Your task to perform on an android device: install app "Walmart Shopping & Grocery" Image 0: 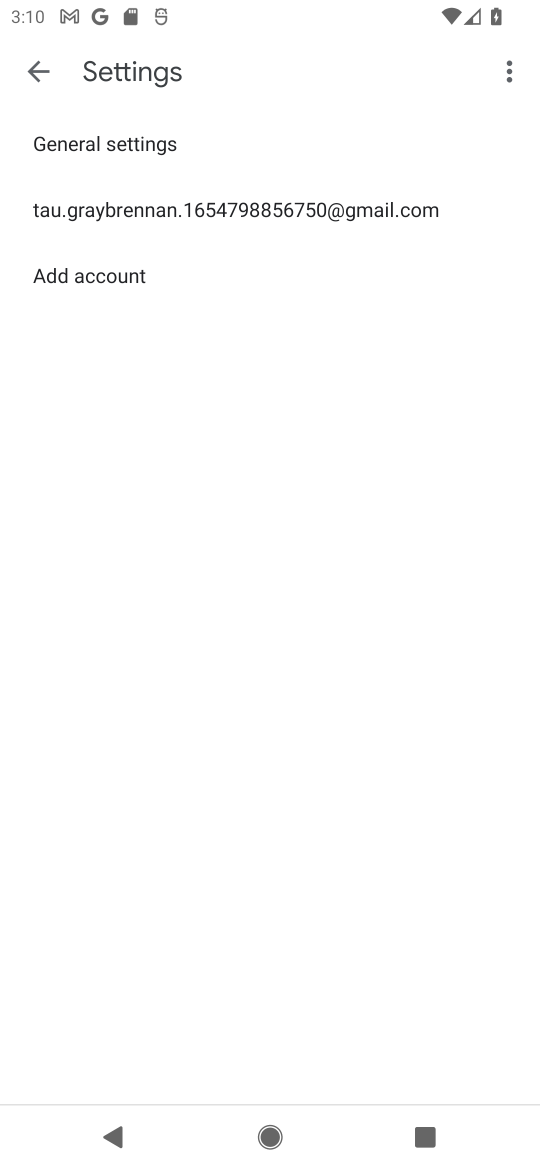
Step 0: drag from (166, 947) to (288, 510)
Your task to perform on an android device: install app "Walmart Shopping & Grocery" Image 1: 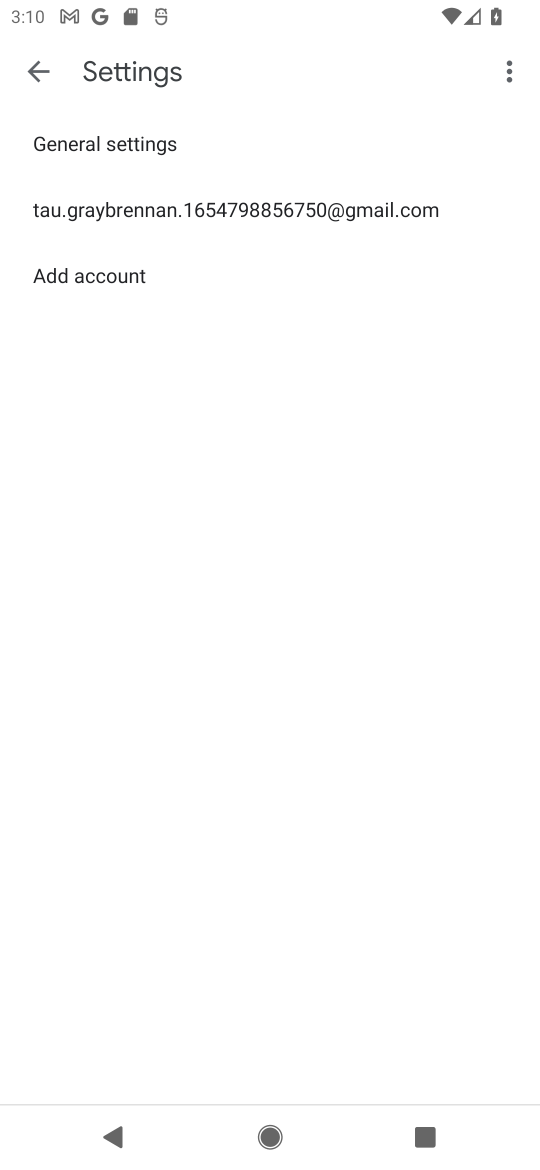
Step 1: press home button
Your task to perform on an android device: install app "Walmart Shopping & Grocery" Image 2: 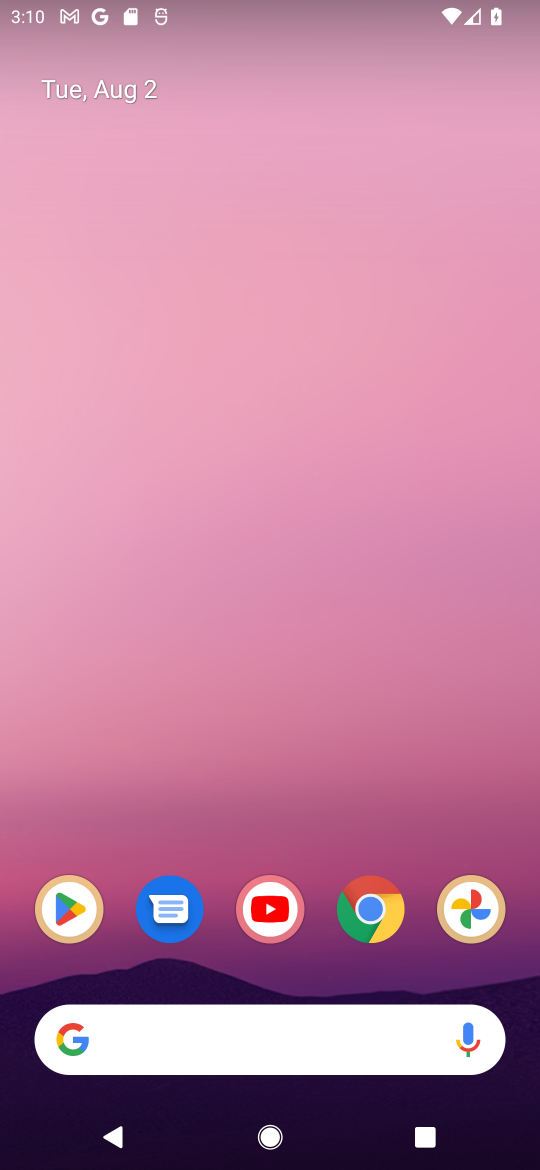
Step 2: drag from (279, 958) to (370, 5)
Your task to perform on an android device: install app "Walmart Shopping & Grocery" Image 3: 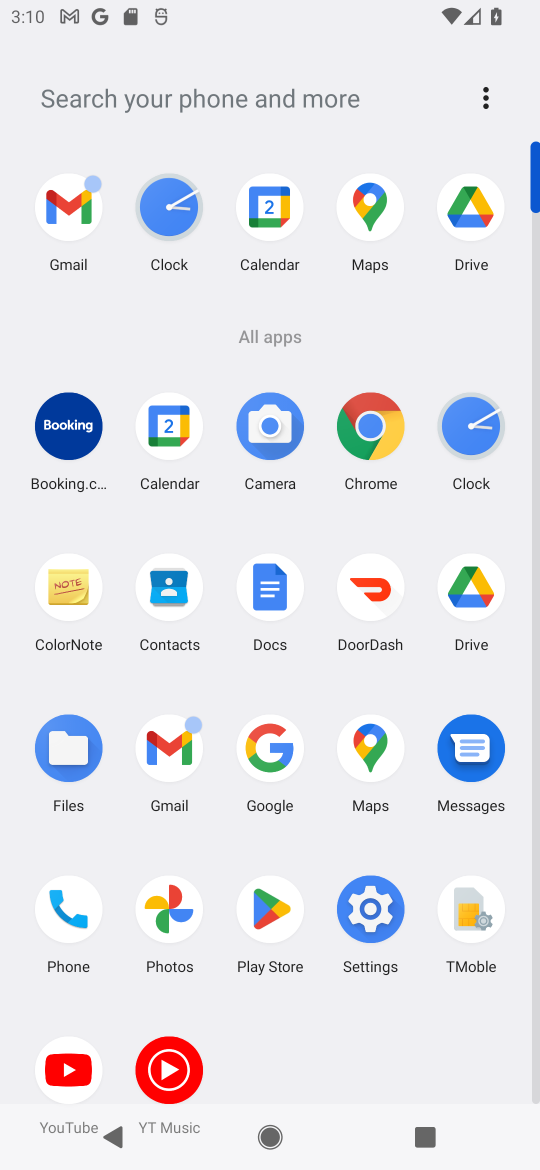
Step 3: click (260, 883)
Your task to perform on an android device: install app "Walmart Shopping & Grocery" Image 4: 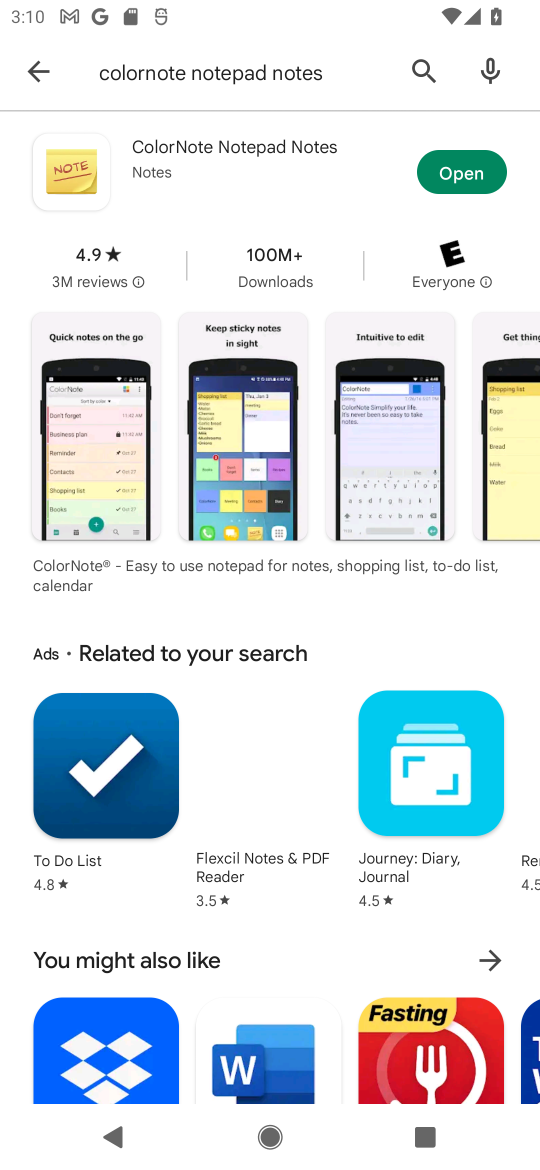
Step 4: click (426, 78)
Your task to perform on an android device: install app "Walmart Shopping & Grocery" Image 5: 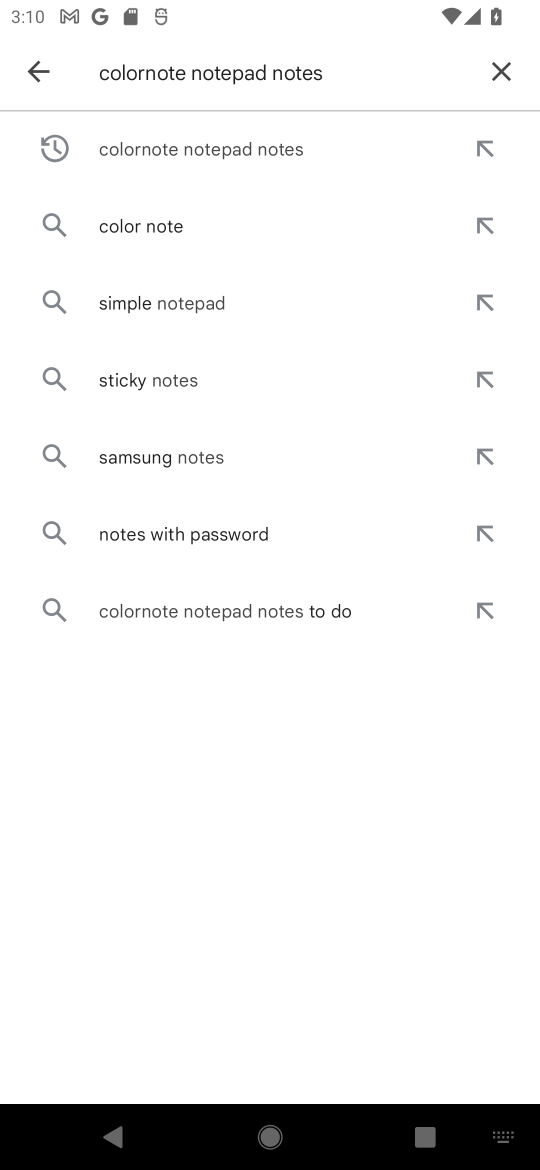
Step 5: click (504, 78)
Your task to perform on an android device: install app "Walmart Shopping & Grocery" Image 6: 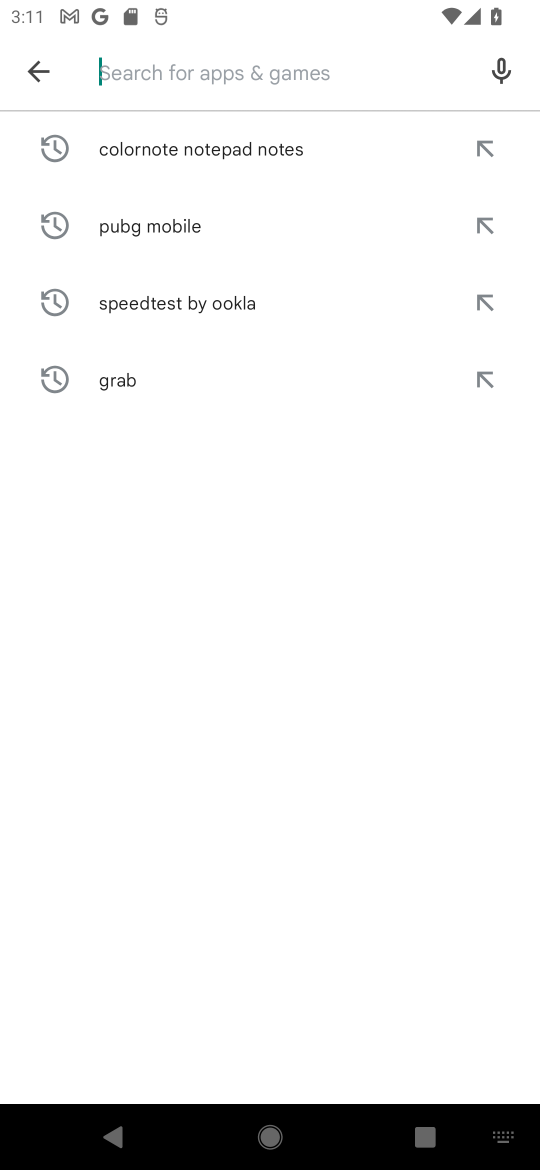
Step 6: type ""
Your task to perform on an android device: install app "Walmart Shopping & Grocery" Image 7: 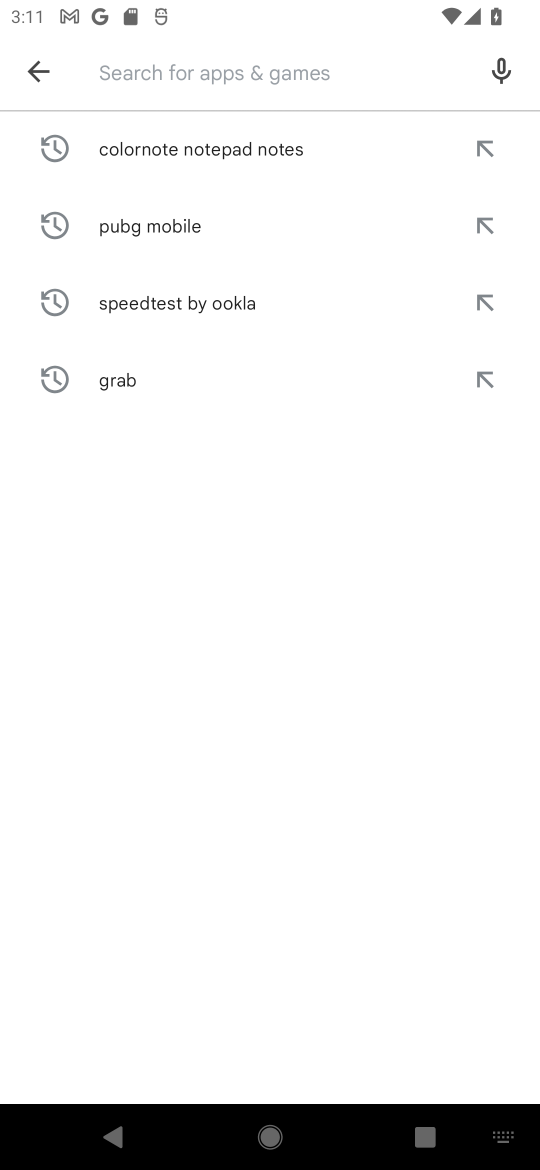
Step 7: type "Walmart Shopping & Grocery"
Your task to perform on an android device: install app "Walmart Shopping & Grocery" Image 8: 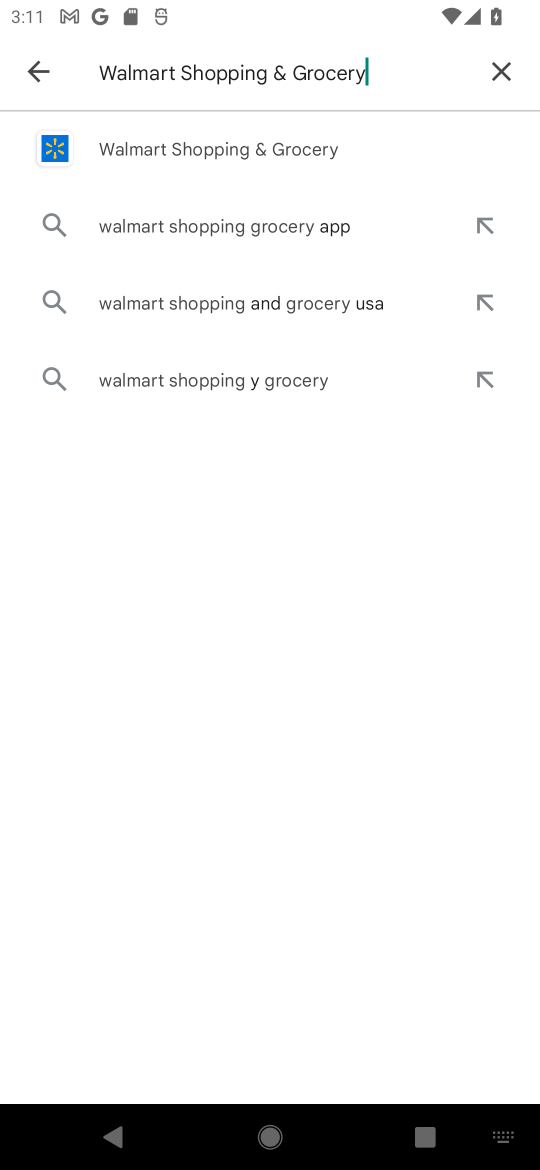
Step 8: click (255, 150)
Your task to perform on an android device: install app "Walmart Shopping & Grocery" Image 9: 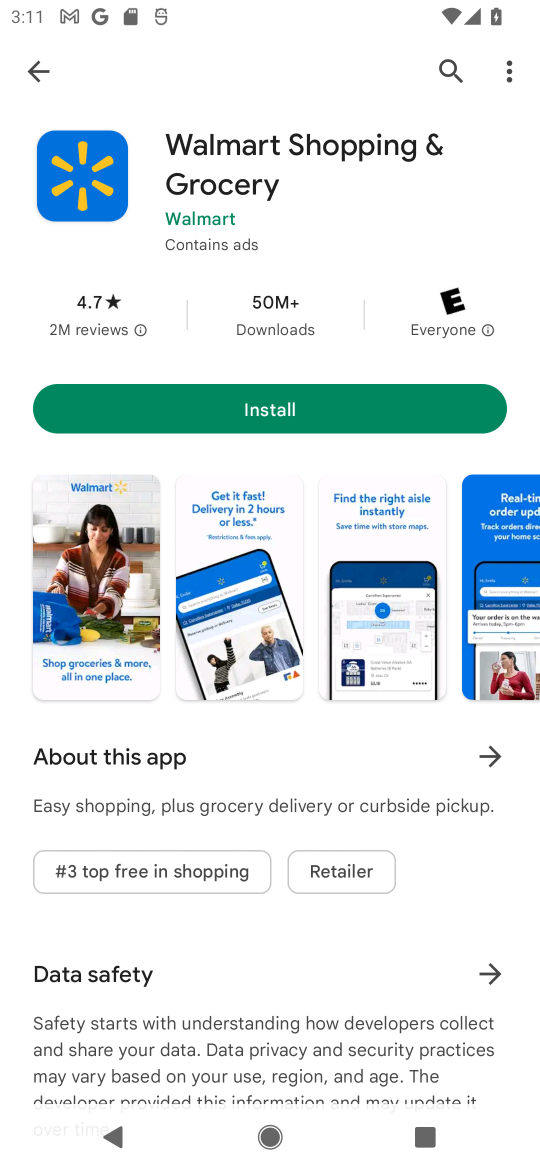
Step 9: click (156, 413)
Your task to perform on an android device: install app "Walmart Shopping & Grocery" Image 10: 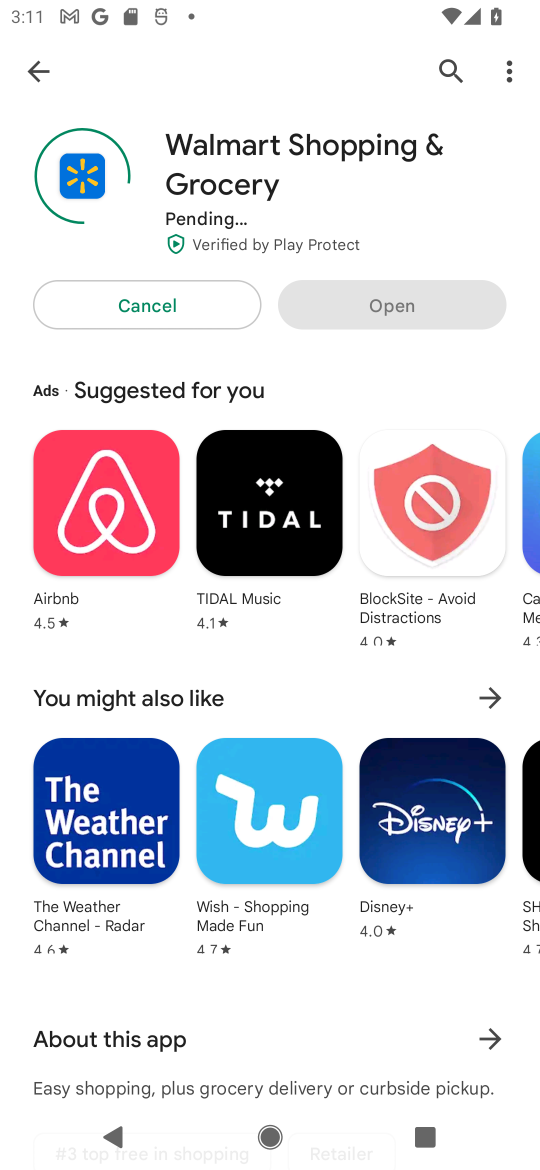
Step 10: task complete